Your task to perform on an android device: clear history in the chrome app Image 0: 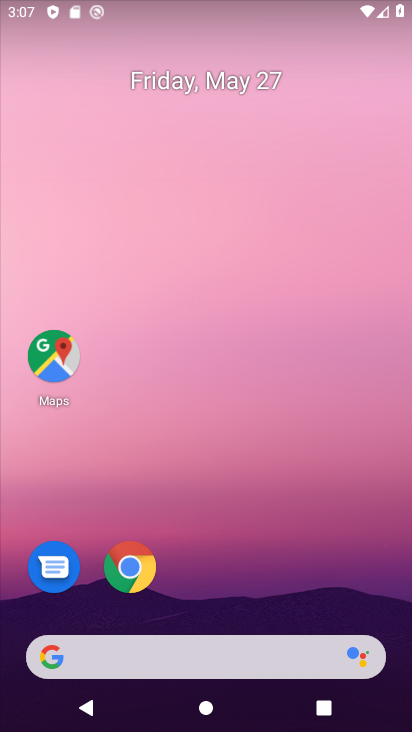
Step 0: click (133, 571)
Your task to perform on an android device: clear history in the chrome app Image 1: 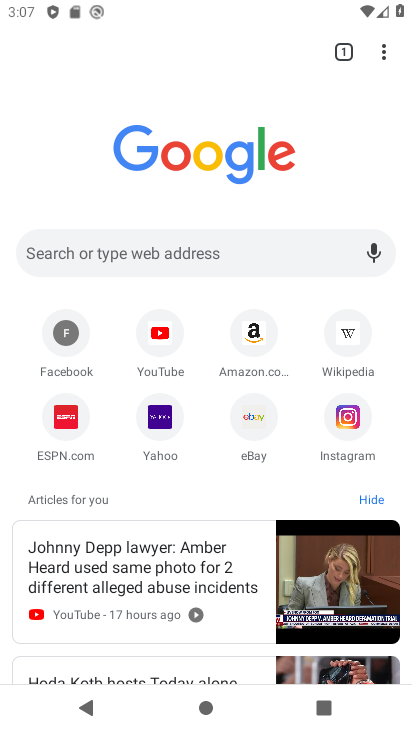
Step 1: click (384, 61)
Your task to perform on an android device: clear history in the chrome app Image 2: 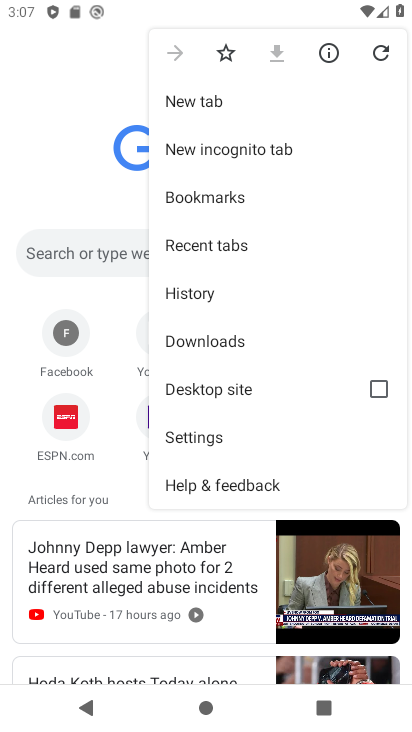
Step 2: click (189, 292)
Your task to perform on an android device: clear history in the chrome app Image 3: 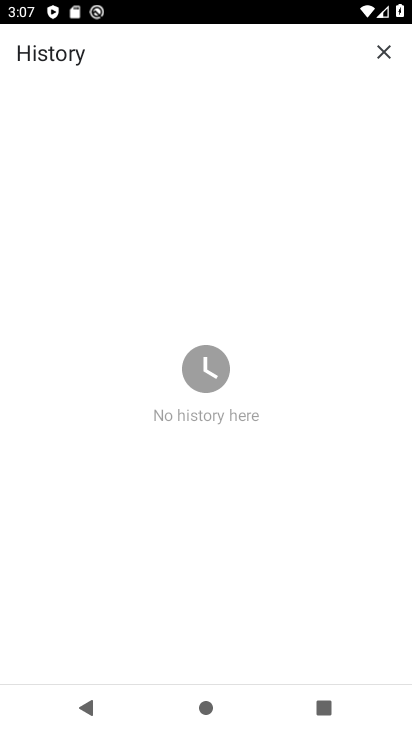
Step 3: task complete